Your task to perform on an android device: Go to calendar. Show me events next week Image 0: 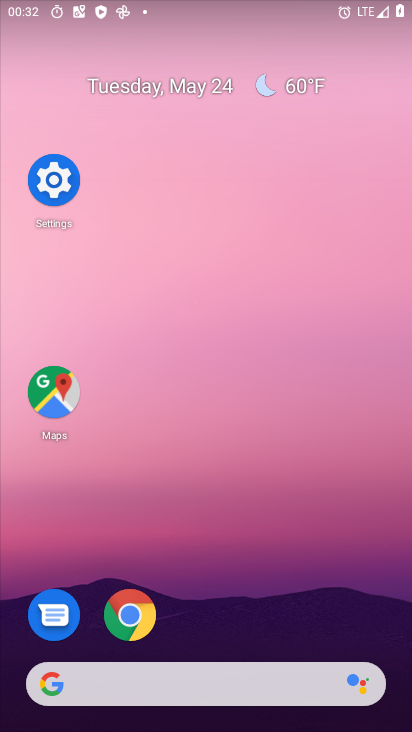
Step 0: drag from (290, 593) to (214, 83)
Your task to perform on an android device: Go to calendar. Show me events next week Image 1: 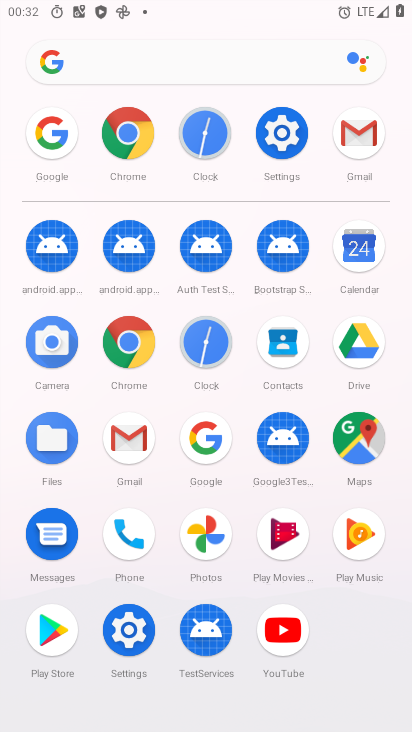
Step 1: click (350, 249)
Your task to perform on an android device: Go to calendar. Show me events next week Image 2: 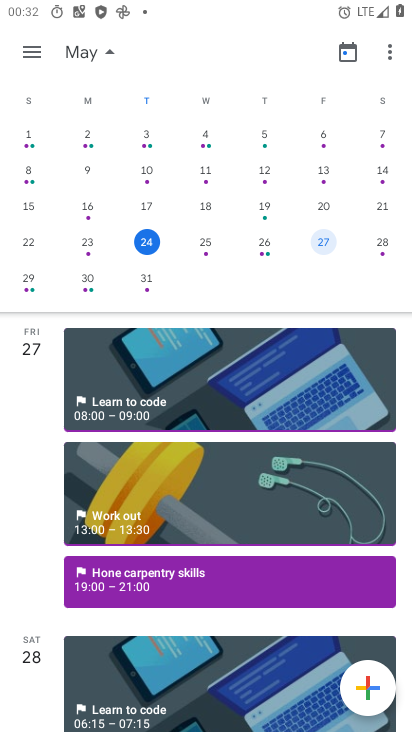
Step 2: click (263, 250)
Your task to perform on an android device: Go to calendar. Show me events next week Image 3: 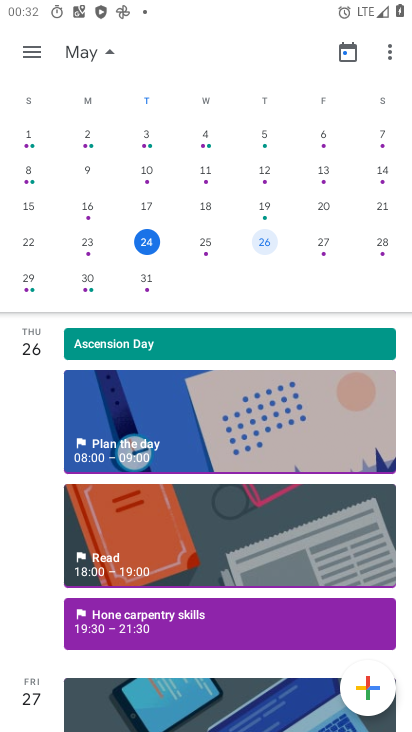
Step 3: task complete